Your task to perform on an android device: Open the map Image 0: 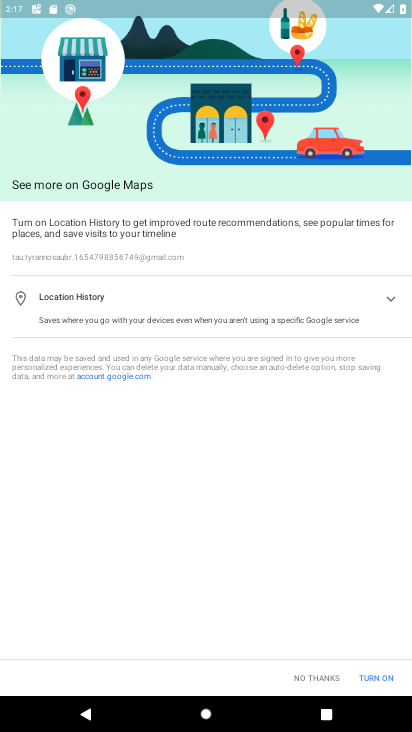
Step 0: click (364, 678)
Your task to perform on an android device: Open the map Image 1: 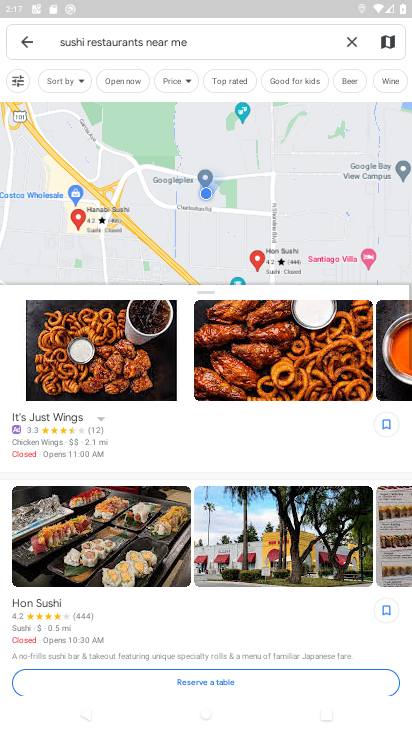
Step 1: click (354, 37)
Your task to perform on an android device: Open the map Image 2: 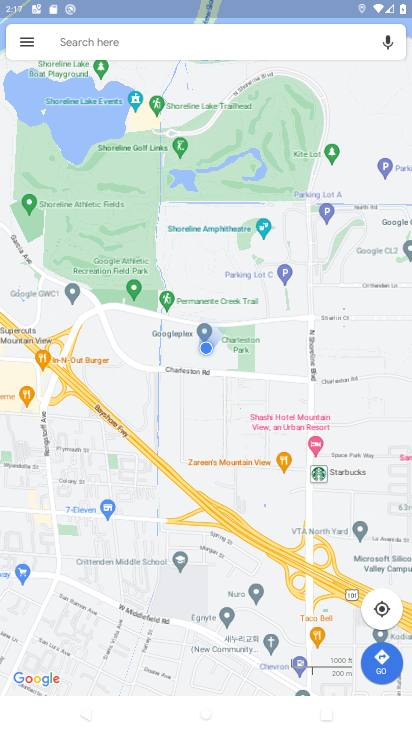
Step 2: task complete